Your task to perform on an android device: turn off airplane mode Image 0: 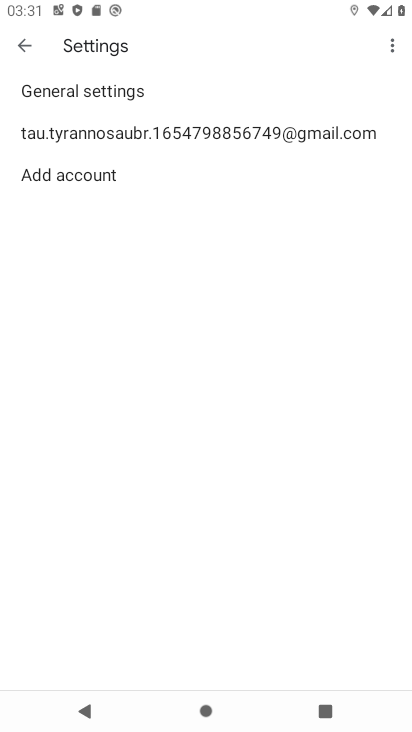
Step 0: press home button
Your task to perform on an android device: turn off airplane mode Image 1: 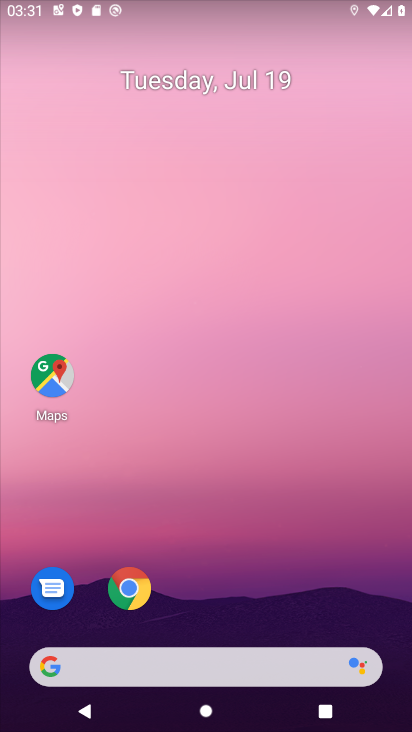
Step 1: drag from (240, 529) to (237, 142)
Your task to perform on an android device: turn off airplane mode Image 2: 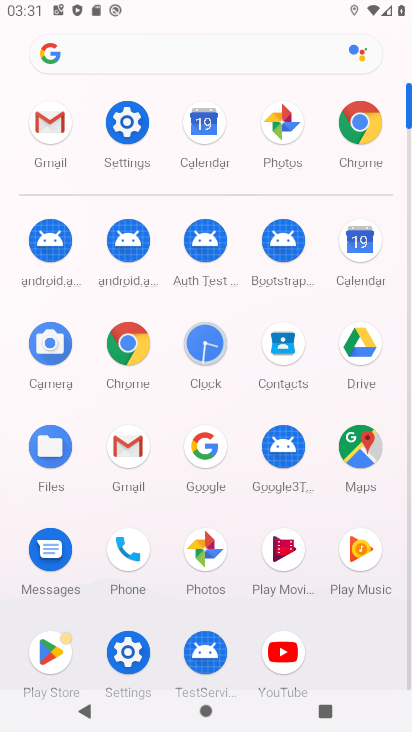
Step 2: click (124, 123)
Your task to perform on an android device: turn off airplane mode Image 3: 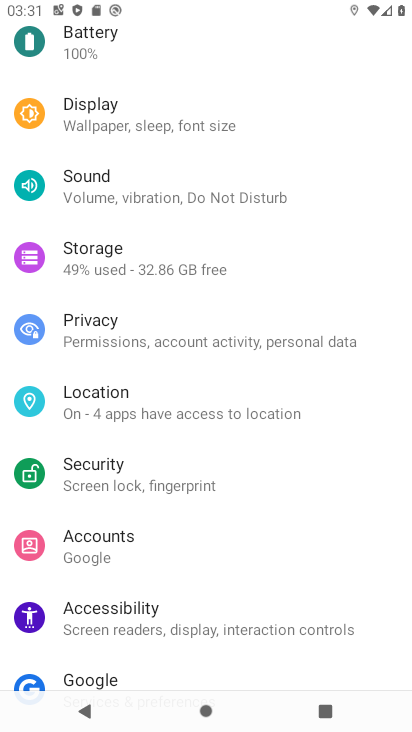
Step 3: drag from (220, 94) to (268, 437)
Your task to perform on an android device: turn off airplane mode Image 4: 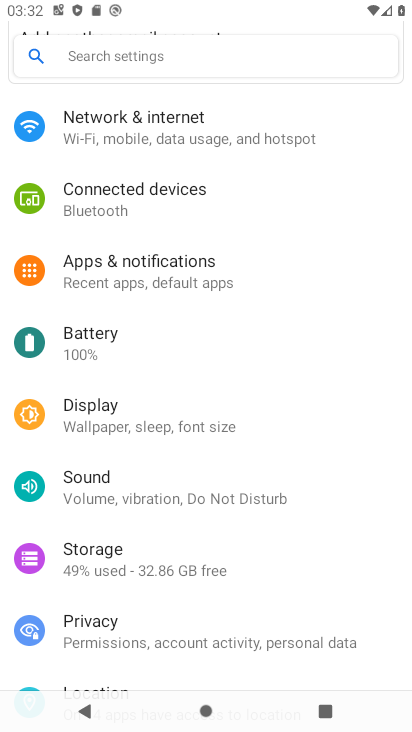
Step 4: click (151, 110)
Your task to perform on an android device: turn off airplane mode Image 5: 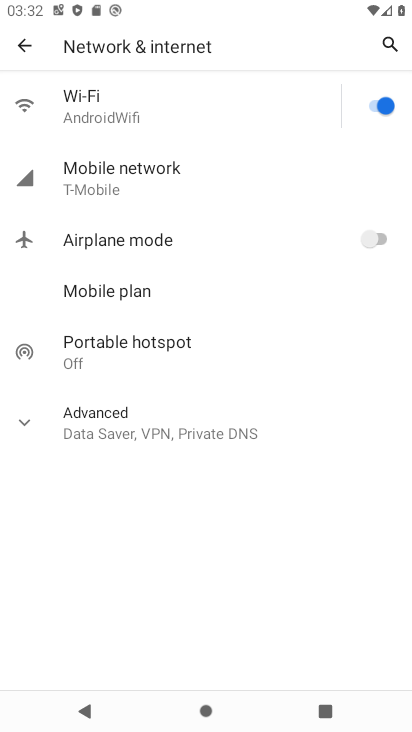
Step 5: task complete